Your task to perform on an android device: empty trash in google photos Image 0: 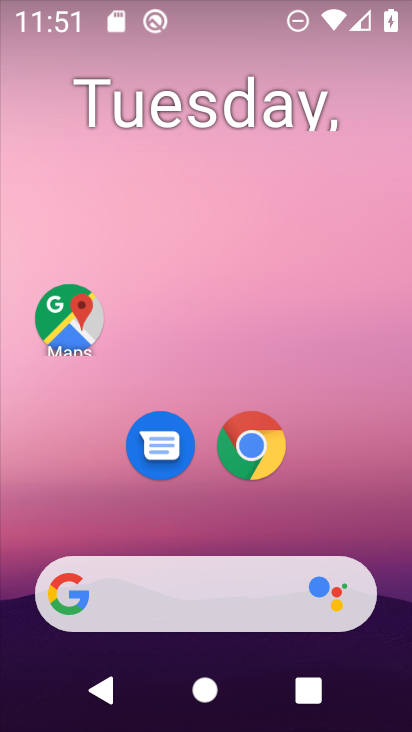
Step 0: drag from (388, 616) to (294, 71)
Your task to perform on an android device: empty trash in google photos Image 1: 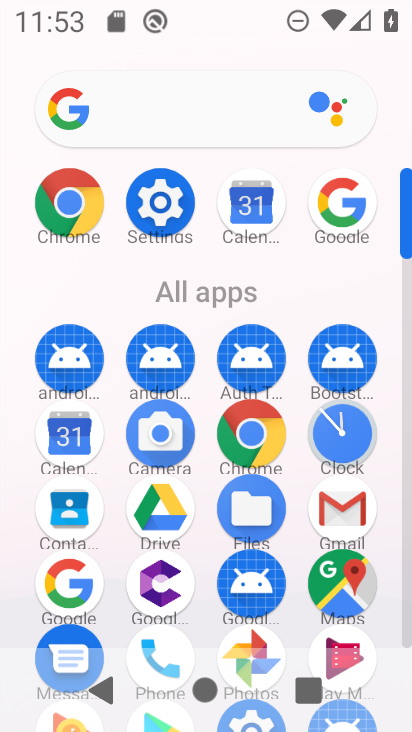
Step 1: drag from (292, 599) to (301, 124)
Your task to perform on an android device: empty trash in google photos Image 2: 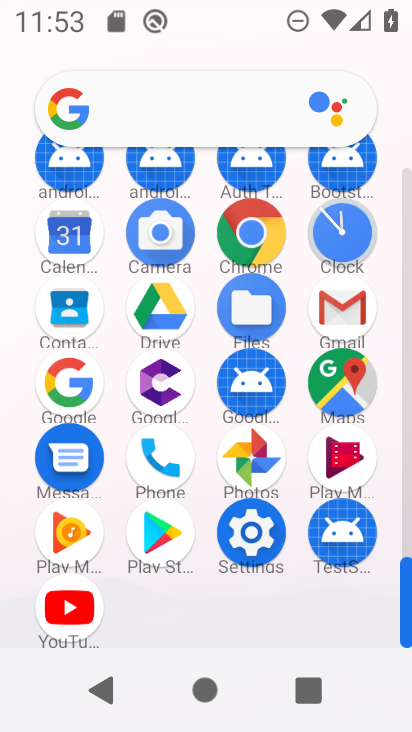
Step 2: click (255, 458)
Your task to perform on an android device: empty trash in google photos Image 3: 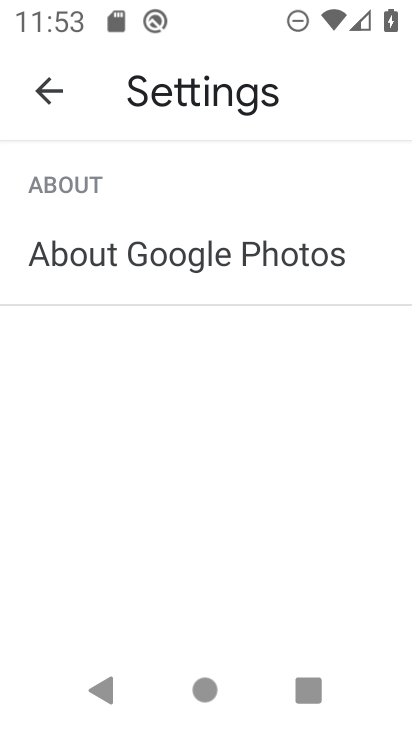
Step 3: press back button
Your task to perform on an android device: empty trash in google photos Image 4: 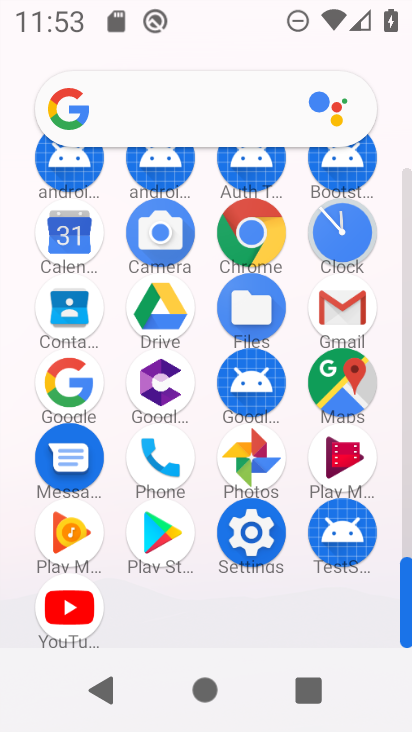
Step 4: click (262, 472)
Your task to perform on an android device: empty trash in google photos Image 5: 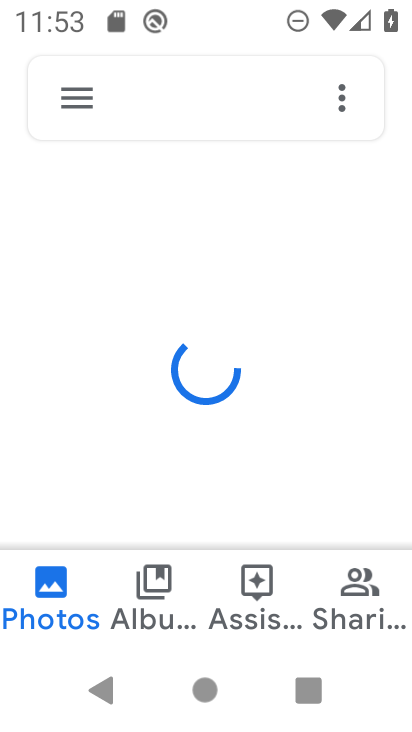
Step 5: click (90, 109)
Your task to perform on an android device: empty trash in google photos Image 6: 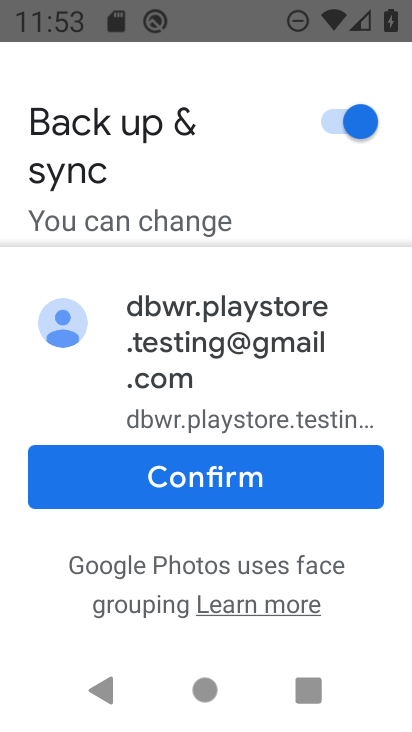
Step 6: click (168, 484)
Your task to perform on an android device: empty trash in google photos Image 7: 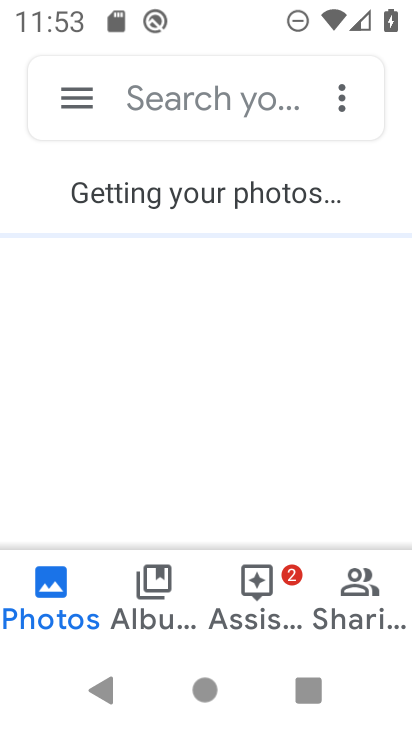
Step 7: click (85, 86)
Your task to perform on an android device: empty trash in google photos Image 8: 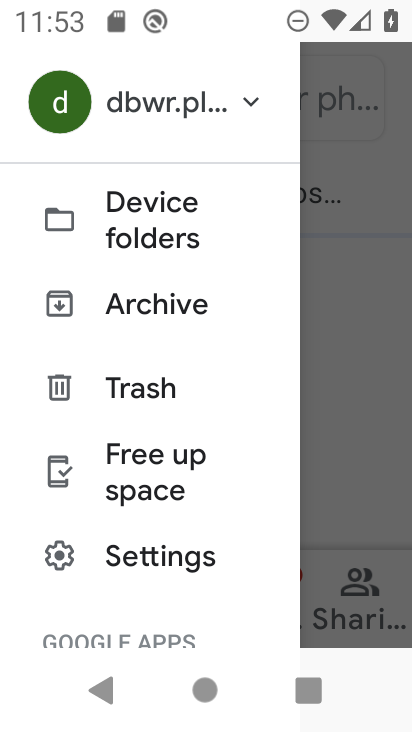
Step 8: click (164, 387)
Your task to perform on an android device: empty trash in google photos Image 9: 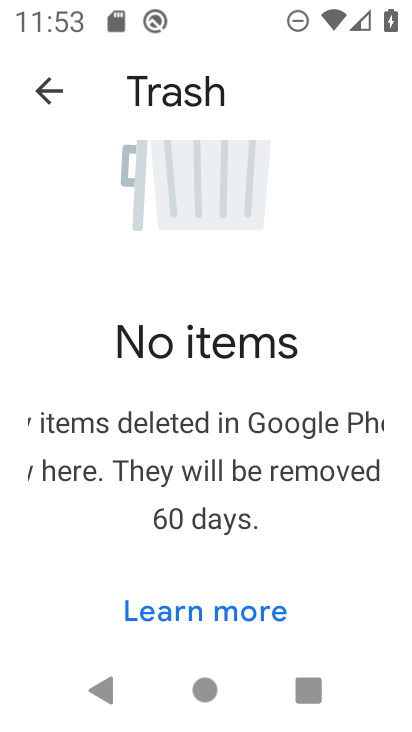
Step 9: task complete